Your task to perform on an android device: Is it going to rain today? Image 0: 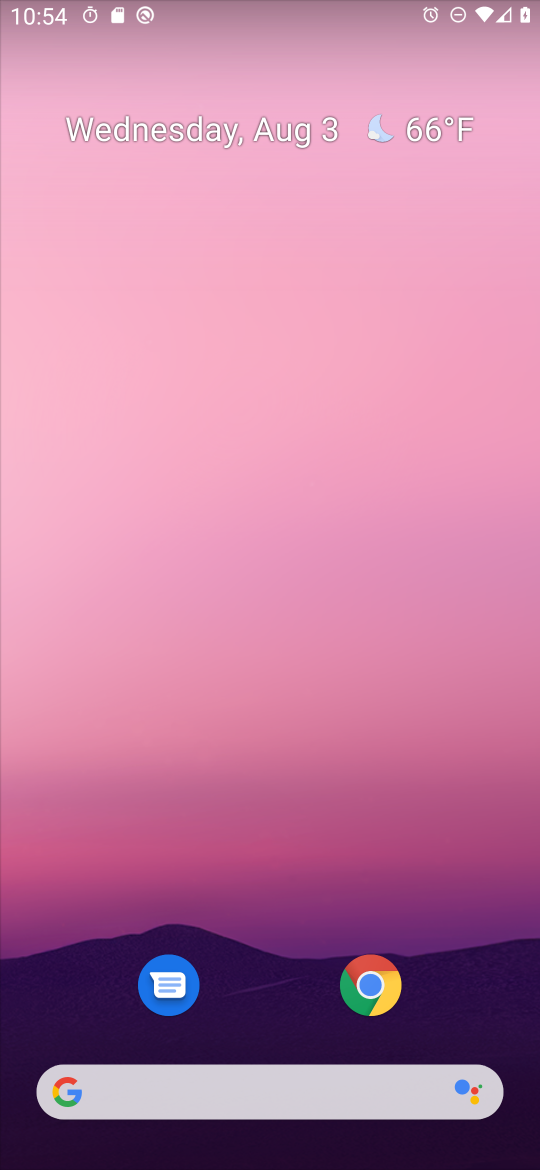
Step 0: drag from (265, 1008) to (319, 259)
Your task to perform on an android device: Is it going to rain today? Image 1: 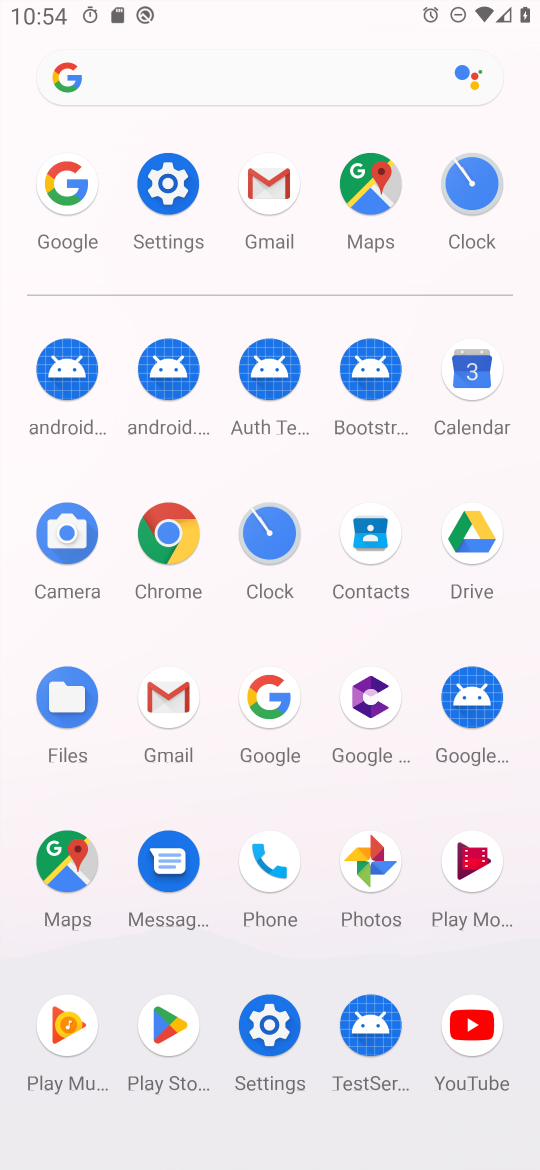
Step 1: click (76, 211)
Your task to perform on an android device: Is it going to rain today? Image 2: 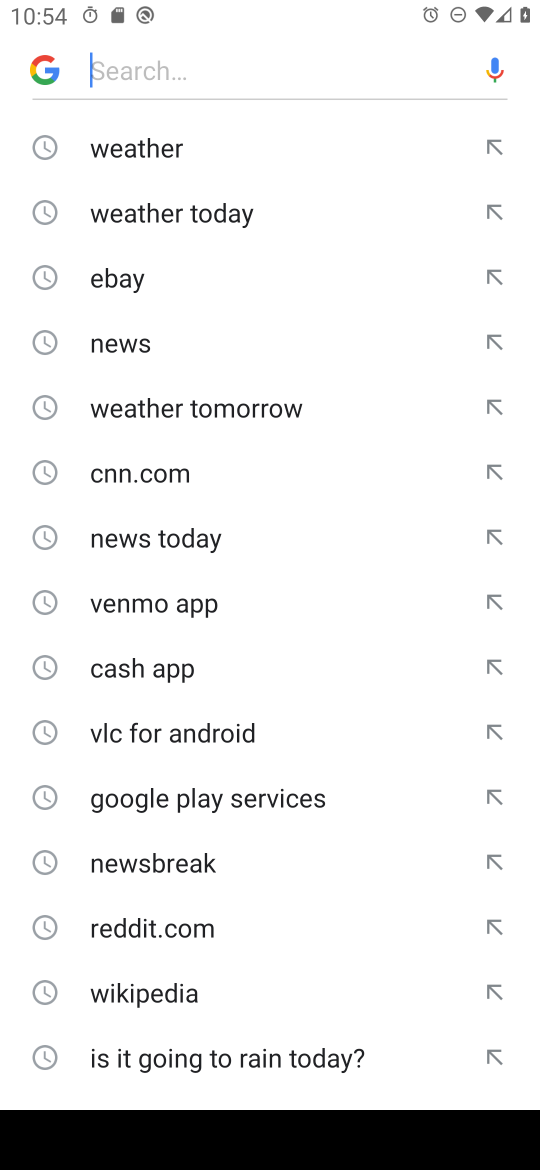
Step 2: click (156, 155)
Your task to perform on an android device: Is it going to rain today? Image 3: 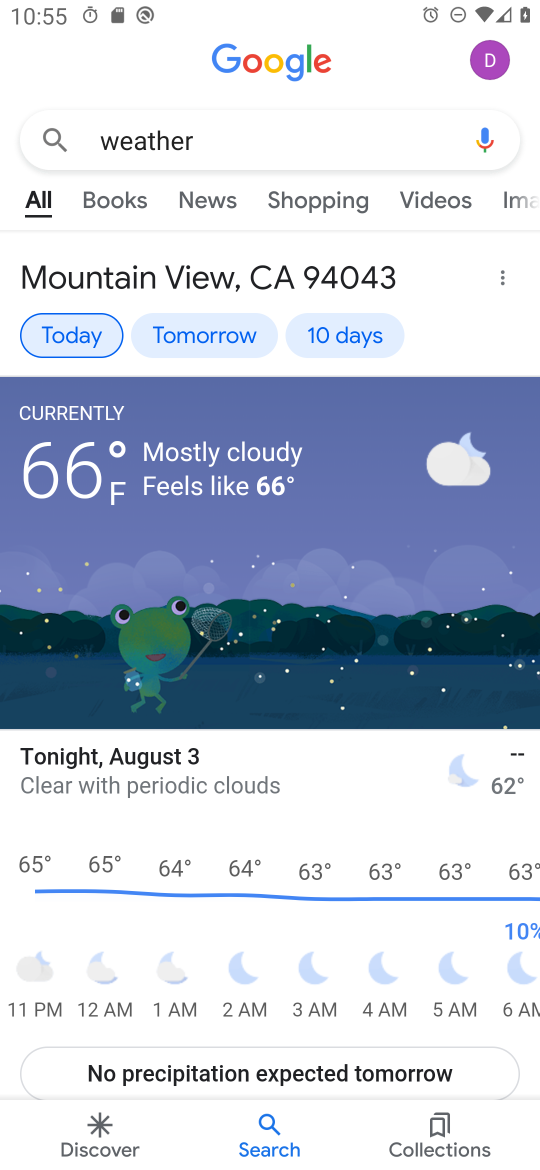
Step 3: task complete